Your task to perform on an android device: Find coffee shops on Maps Image 0: 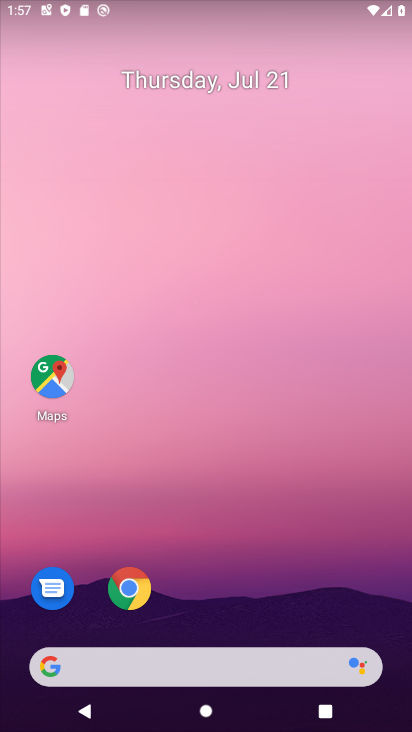
Step 0: drag from (207, 563) to (315, 95)
Your task to perform on an android device: Find coffee shops on Maps Image 1: 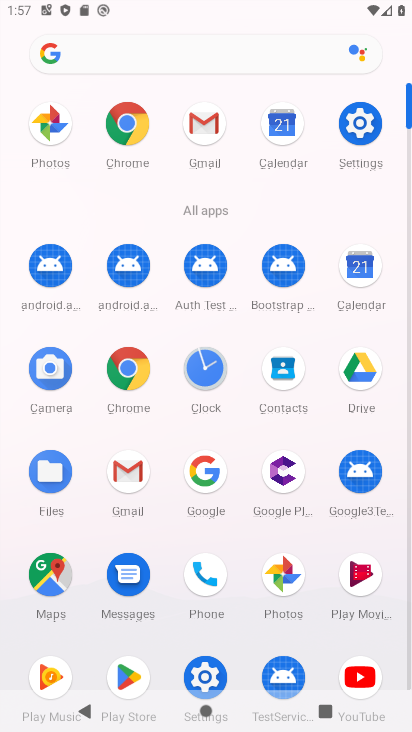
Step 1: click (44, 578)
Your task to perform on an android device: Find coffee shops on Maps Image 2: 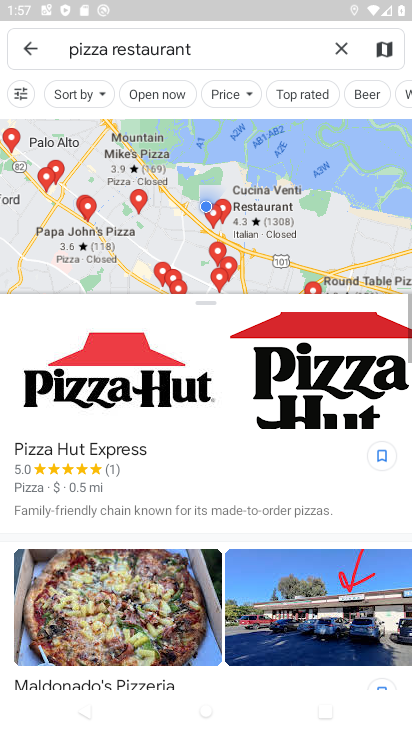
Step 2: click (342, 47)
Your task to perform on an android device: Find coffee shops on Maps Image 3: 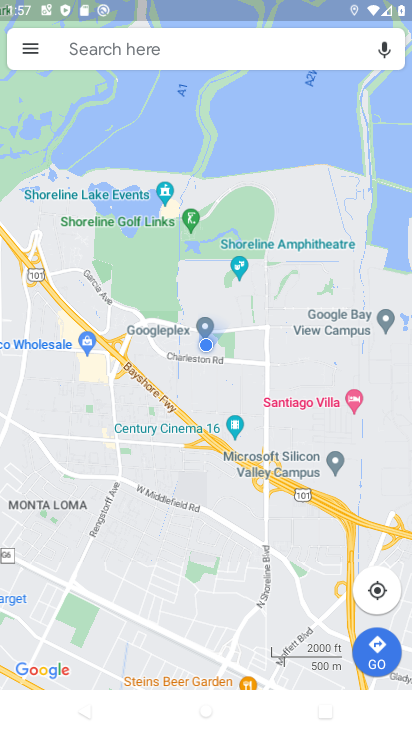
Step 3: click (139, 45)
Your task to perform on an android device: Find coffee shops on Maps Image 4: 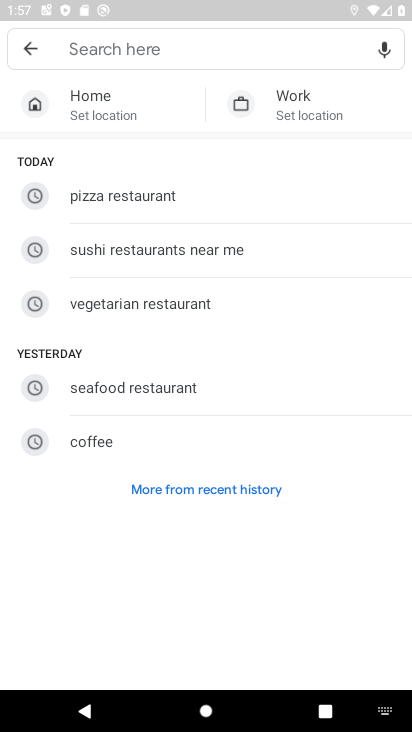
Step 4: click (93, 445)
Your task to perform on an android device: Find coffee shops on Maps Image 5: 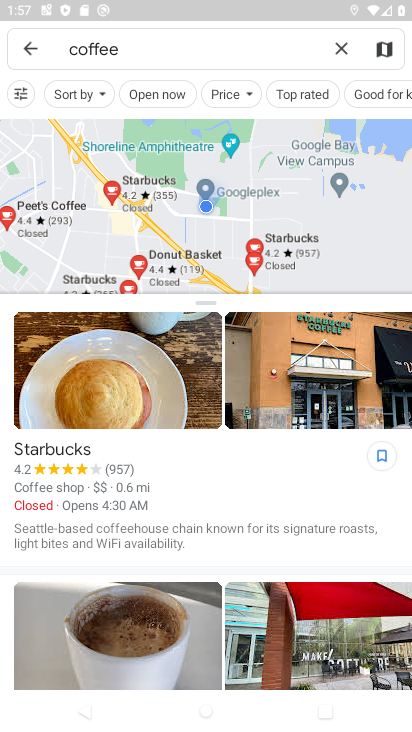
Step 5: task complete